Your task to perform on an android device: Open Maps and search for coffee Image 0: 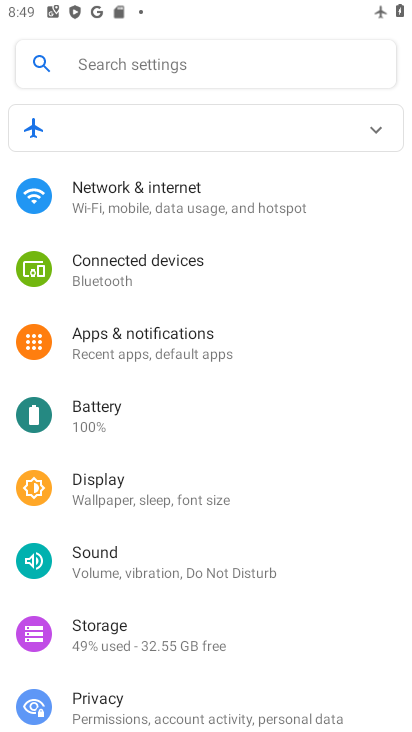
Step 0: press home button
Your task to perform on an android device: Open Maps and search for coffee Image 1: 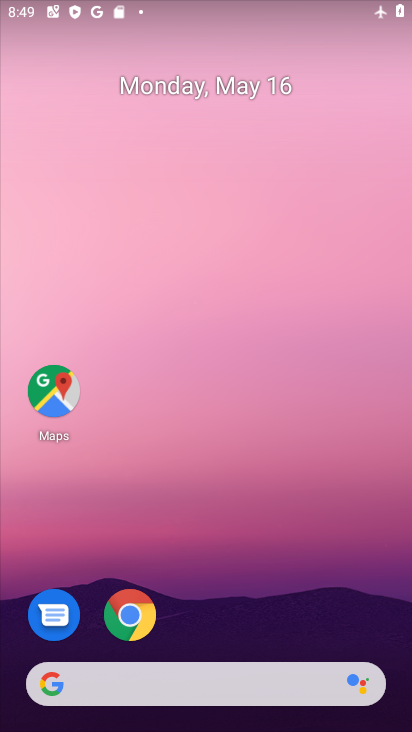
Step 1: click (50, 405)
Your task to perform on an android device: Open Maps and search for coffee Image 2: 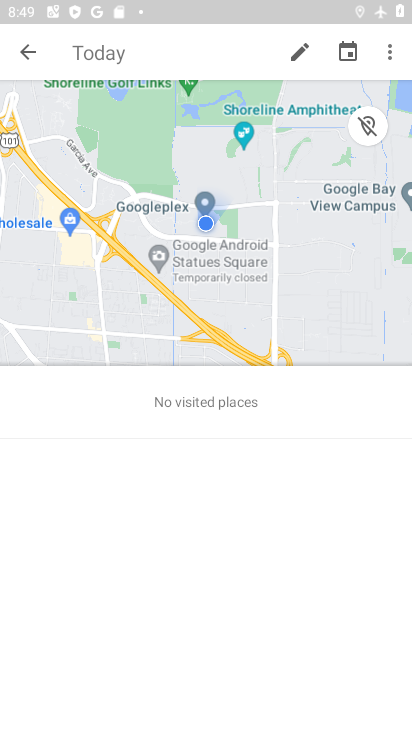
Step 2: click (159, 52)
Your task to perform on an android device: Open Maps and search for coffee Image 3: 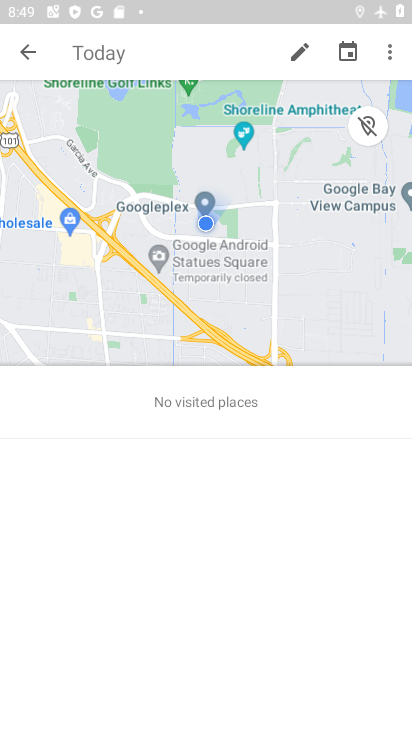
Step 3: click (30, 53)
Your task to perform on an android device: Open Maps and search for coffee Image 4: 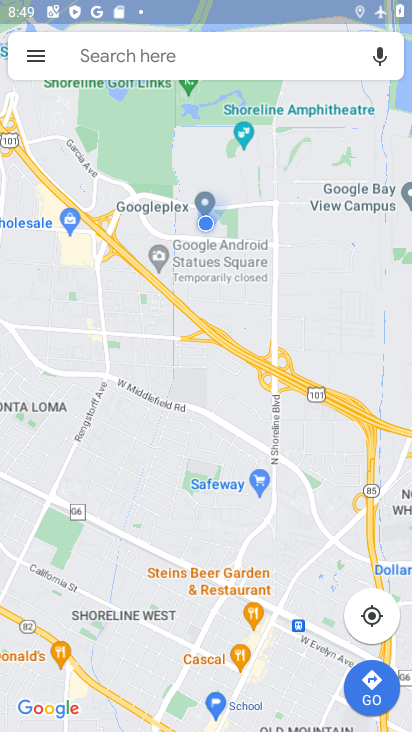
Step 4: click (193, 55)
Your task to perform on an android device: Open Maps and search for coffee Image 5: 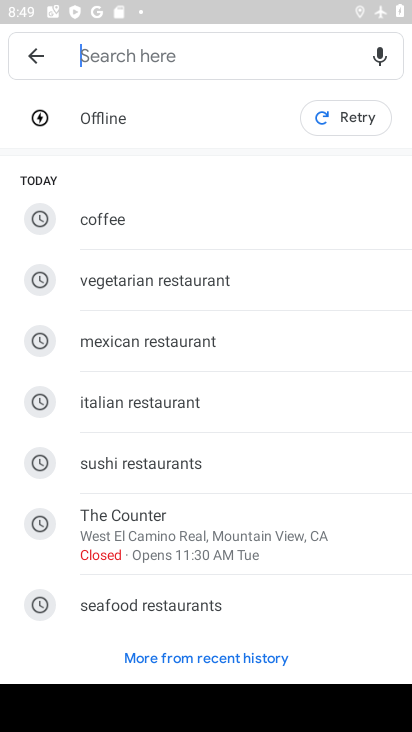
Step 5: click (106, 216)
Your task to perform on an android device: Open Maps and search for coffee Image 6: 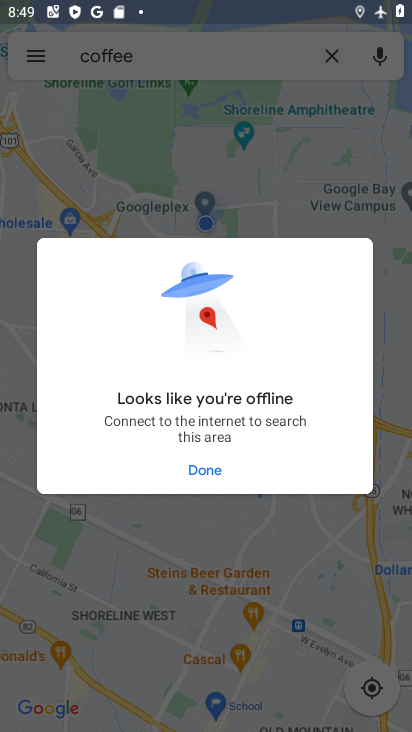
Step 6: task complete